Your task to perform on an android device: stop showing notifications on the lock screen Image 0: 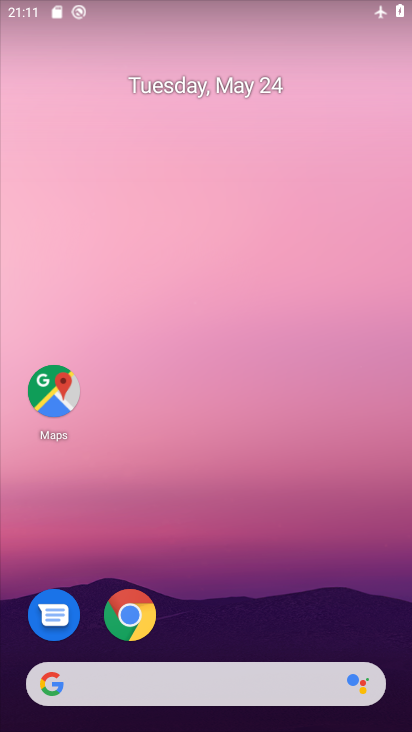
Step 0: drag from (190, 642) to (204, 256)
Your task to perform on an android device: stop showing notifications on the lock screen Image 1: 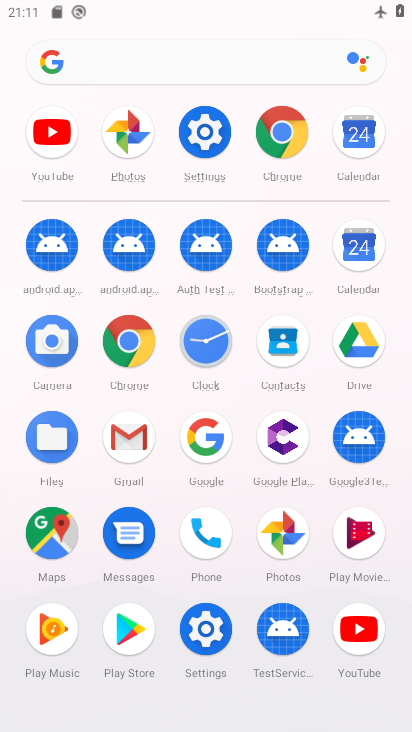
Step 1: click (204, 136)
Your task to perform on an android device: stop showing notifications on the lock screen Image 2: 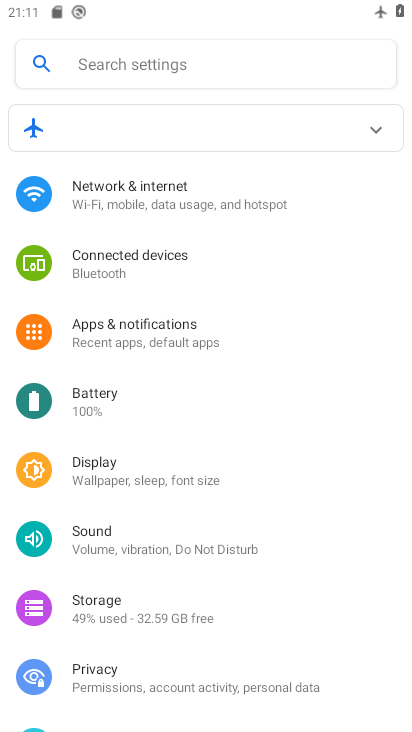
Step 2: click (140, 338)
Your task to perform on an android device: stop showing notifications on the lock screen Image 3: 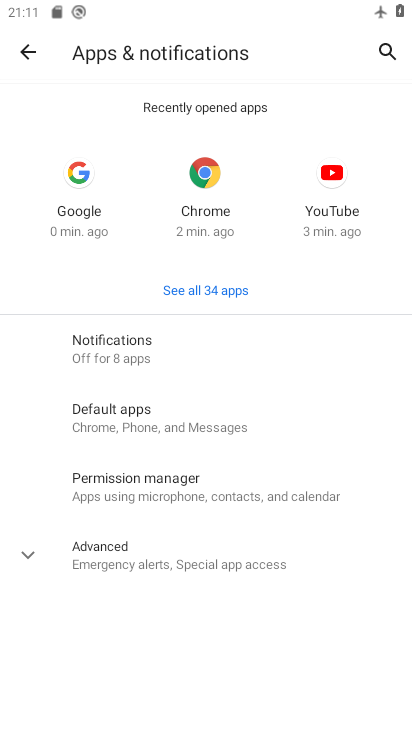
Step 3: click (133, 343)
Your task to perform on an android device: stop showing notifications on the lock screen Image 4: 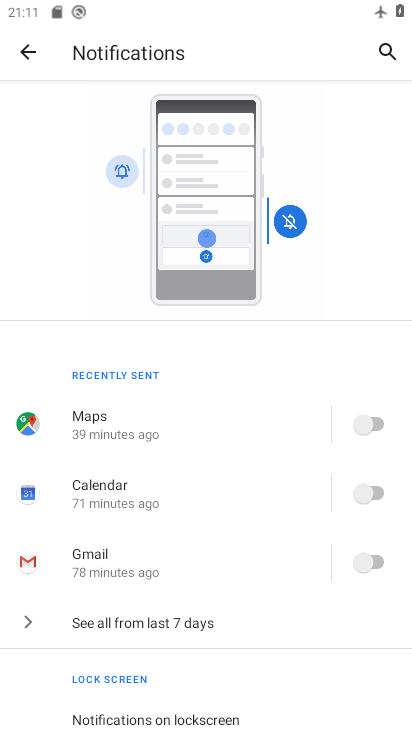
Step 4: drag from (257, 684) to (270, 558)
Your task to perform on an android device: stop showing notifications on the lock screen Image 5: 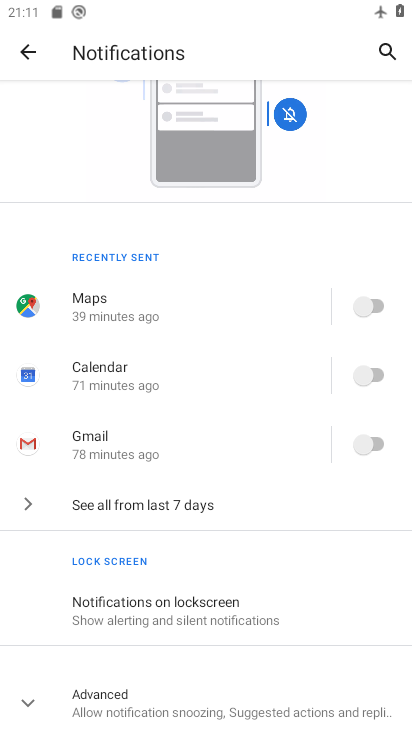
Step 5: click (223, 594)
Your task to perform on an android device: stop showing notifications on the lock screen Image 6: 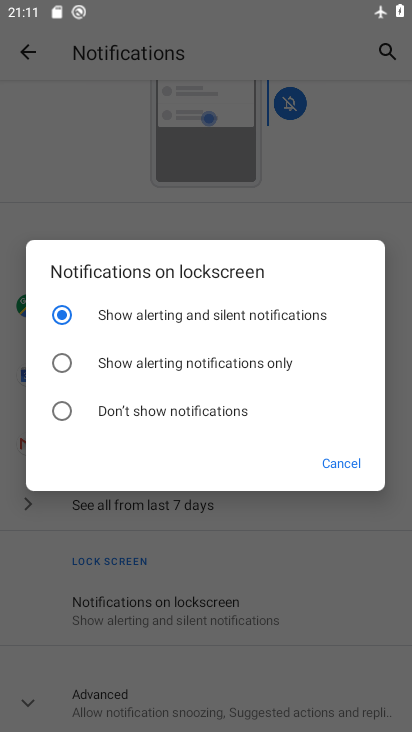
Step 6: click (154, 411)
Your task to perform on an android device: stop showing notifications on the lock screen Image 7: 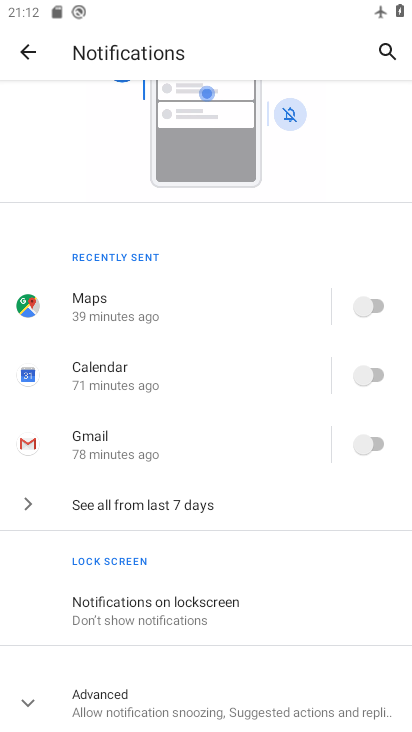
Step 7: task complete